Your task to perform on an android device: Go to network settings Image 0: 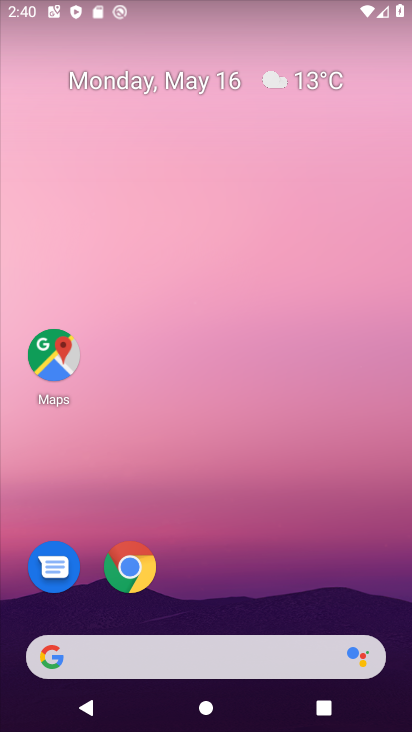
Step 0: drag from (272, 532) to (315, 80)
Your task to perform on an android device: Go to network settings Image 1: 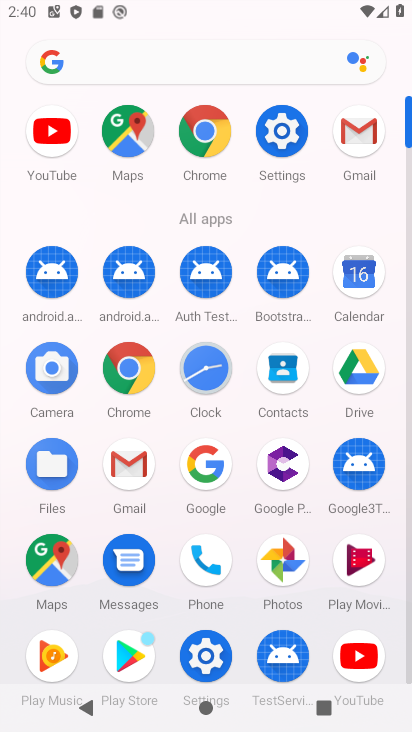
Step 1: click (287, 116)
Your task to perform on an android device: Go to network settings Image 2: 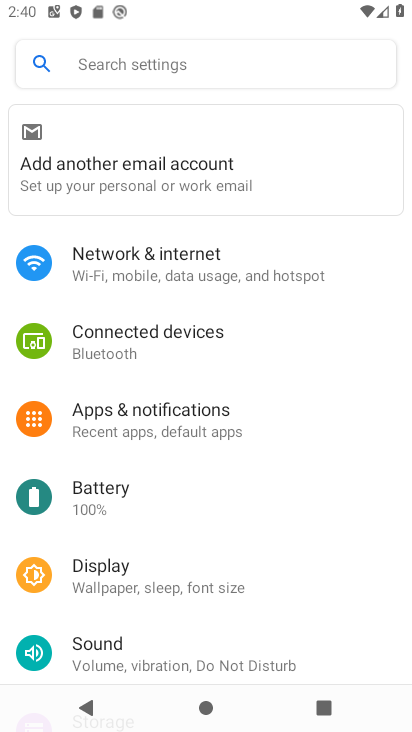
Step 2: click (174, 262)
Your task to perform on an android device: Go to network settings Image 3: 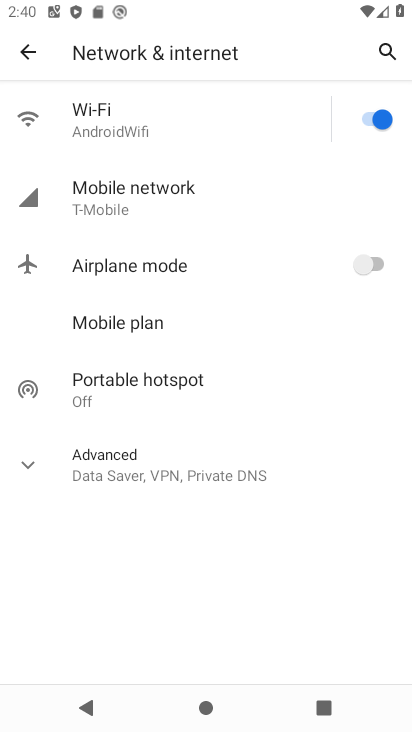
Step 3: task complete